Your task to perform on an android device: Search for pizza restaurants on Maps Image 0: 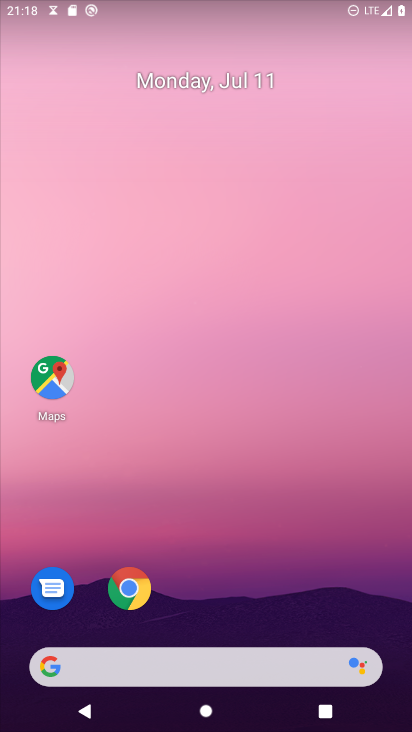
Step 0: press home button
Your task to perform on an android device: Search for pizza restaurants on Maps Image 1: 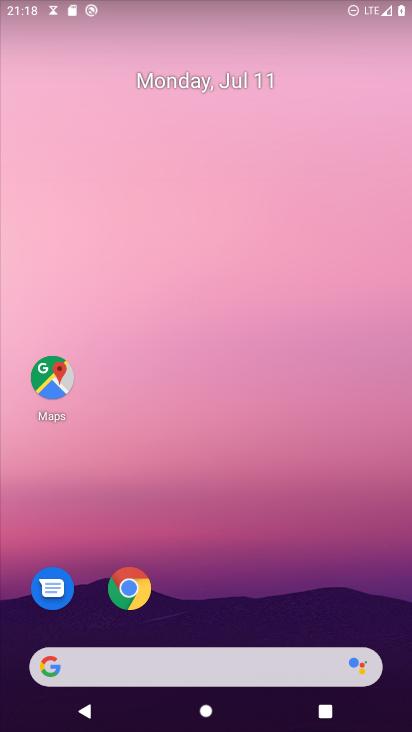
Step 1: drag from (203, 633) to (142, 122)
Your task to perform on an android device: Search for pizza restaurants on Maps Image 2: 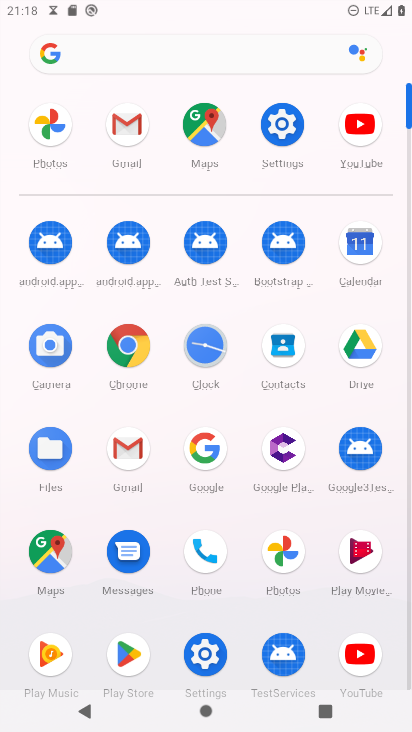
Step 2: click (198, 125)
Your task to perform on an android device: Search for pizza restaurants on Maps Image 3: 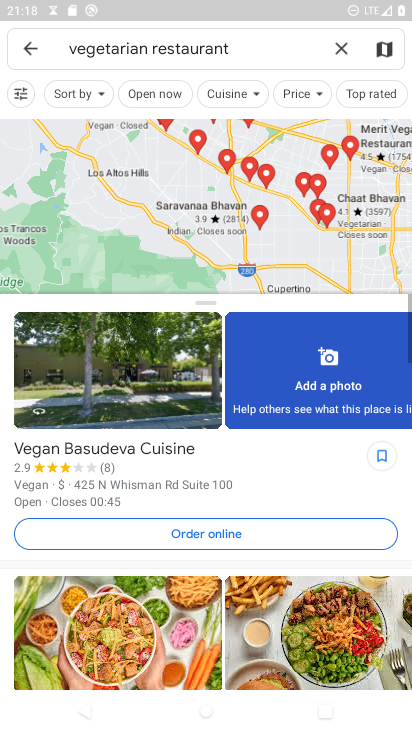
Step 3: press back button
Your task to perform on an android device: Search for pizza restaurants on Maps Image 4: 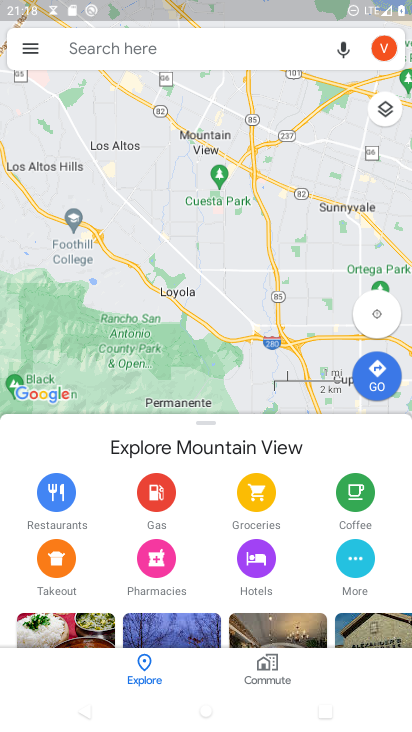
Step 4: click (140, 49)
Your task to perform on an android device: Search for pizza restaurants on Maps Image 5: 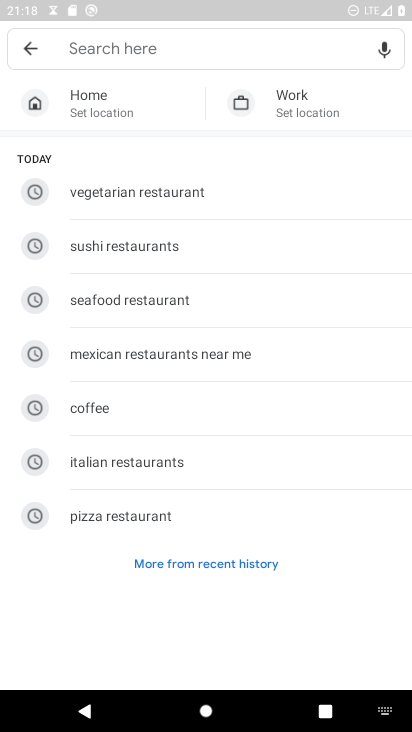
Step 5: click (120, 514)
Your task to perform on an android device: Search for pizza restaurants on Maps Image 6: 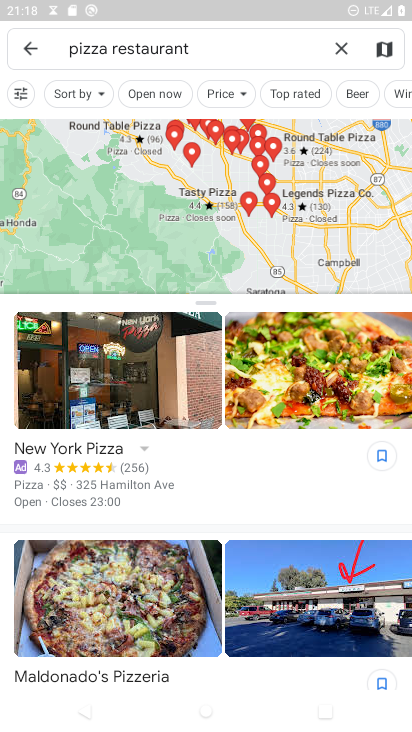
Step 6: task complete